Your task to perform on an android device: turn smart compose on in the gmail app Image 0: 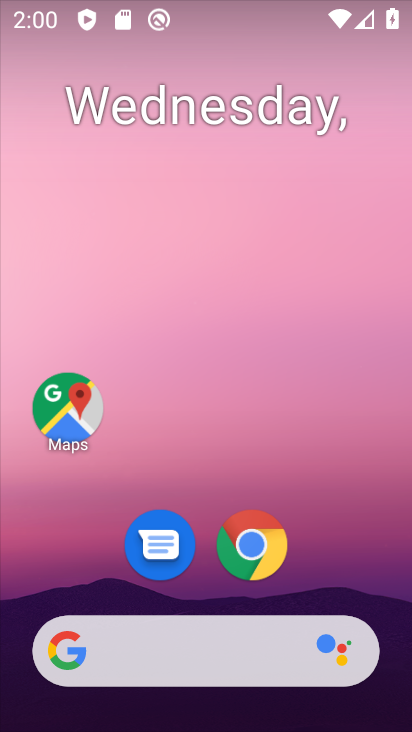
Step 0: drag from (349, 585) to (306, 71)
Your task to perform on an android device: turn smart compose on in the gmail app Image 1: 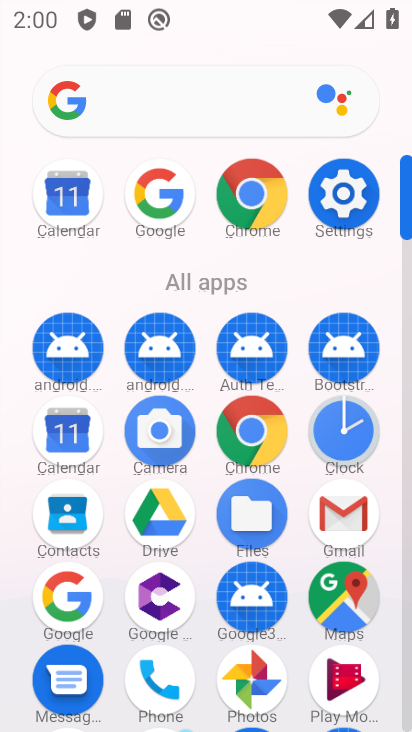
Step 1: drag from (340, 509) to (89, 223)
Your task to perform on an android device: turn smart compose on in the gmail app Image 2: 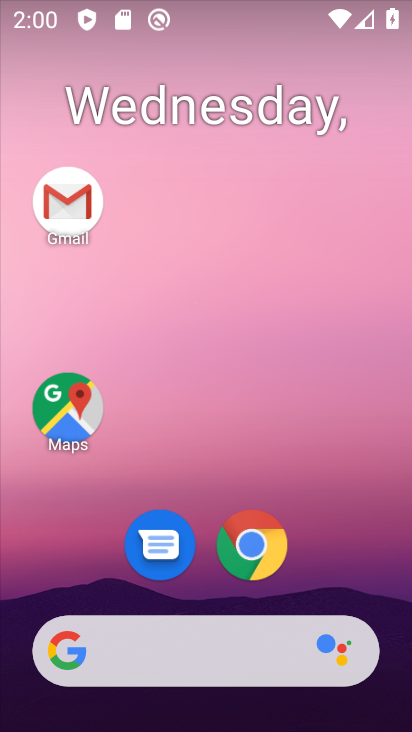
Step 2: click (82, 198)
Your task to perform on an android device: turn smart compose on in the gmail app Image 3: 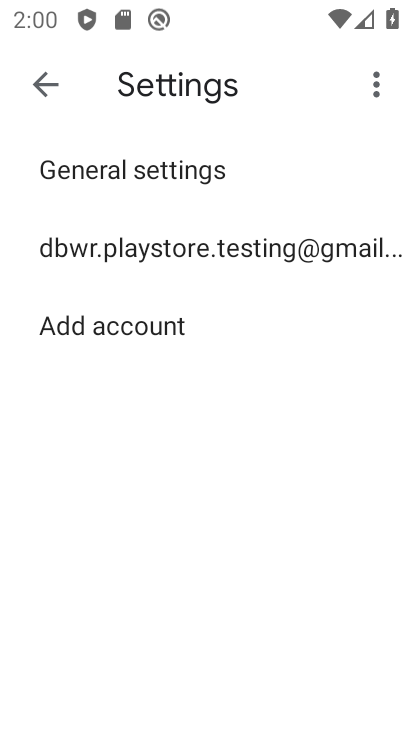
Step 3: click (181, 244)
Your task to perform on an android device: turn smart compose on in the gmail app Image 4: 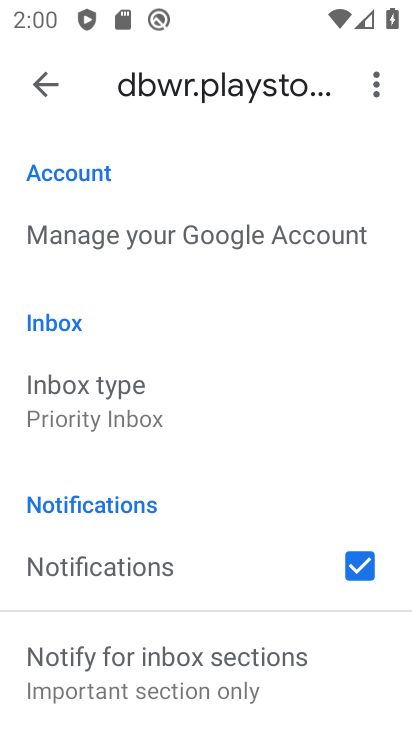
Step 4: task complete